Your task to perform on an android device: Check the weather Image 0: 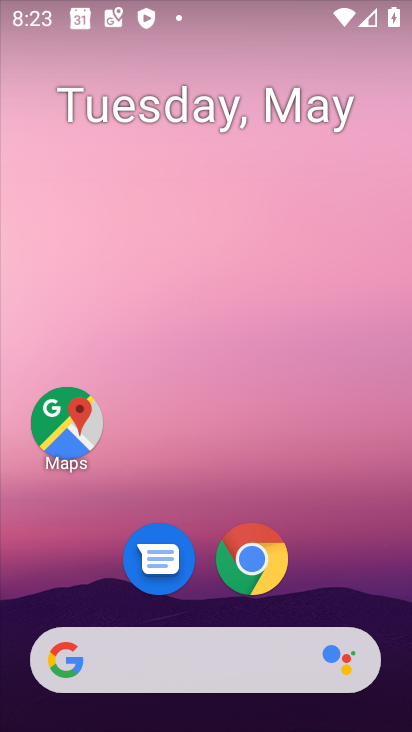
Step 0: drag from (183, 599) to (254, 30)
Your task to perform on an android device: Check the weather Image 1: 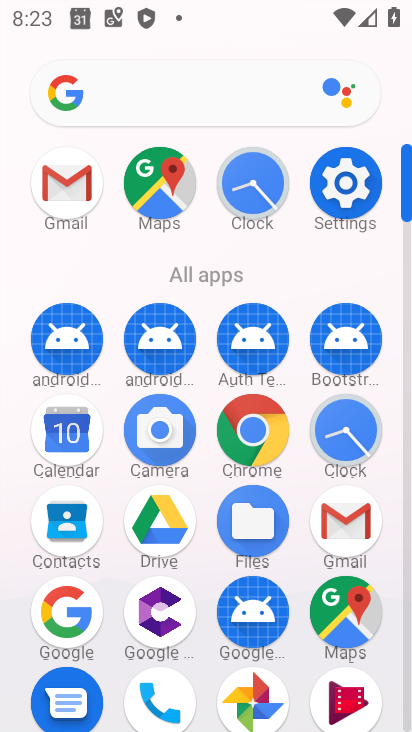
Step 1: click (154, 106)
Your task to perform on an android device: Check the weather Image 2: 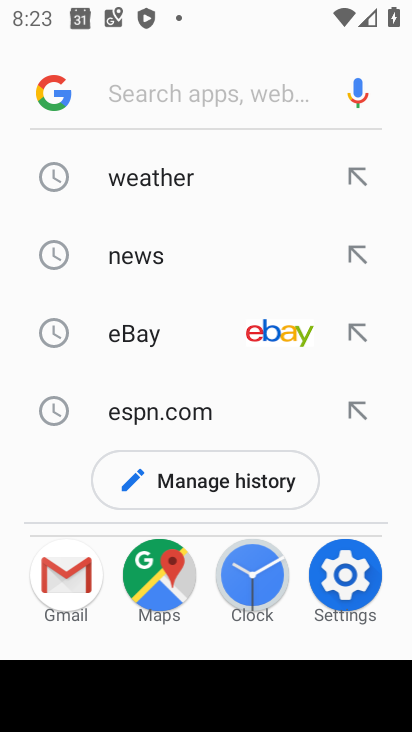
Step 2: click (148, 170)
Your task to perform on an android device: Check the weather Image 3: 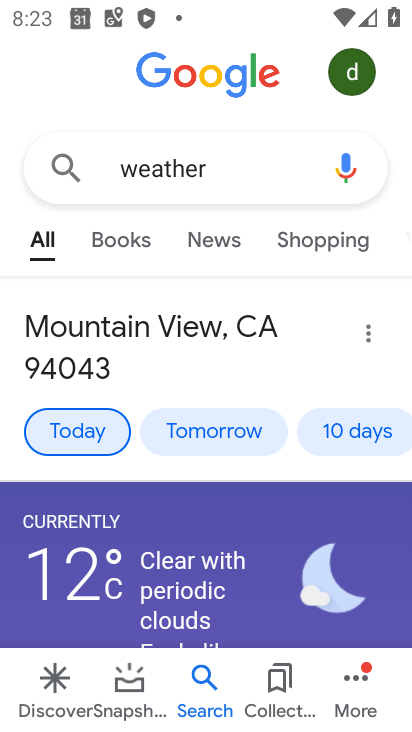
Step 3: task complete